Your task to perform on an android device: open the mobile data screen to see how much data has been used Image 0: 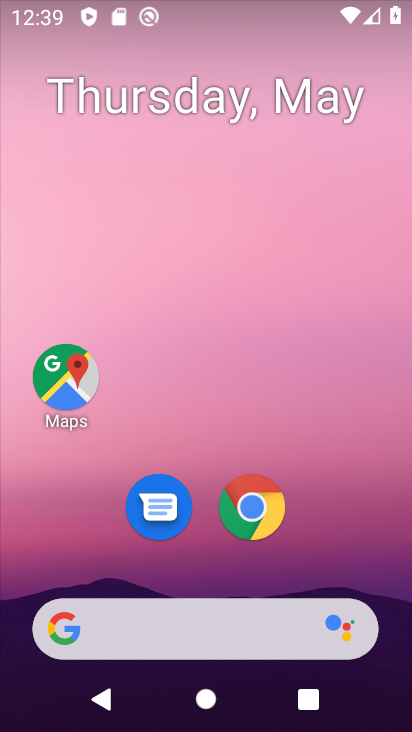
Step 0: drag from (222, 551) to (215, 18)
Your task to perform on an android device: open the mobile data screen to see how much data has been used Image 1: 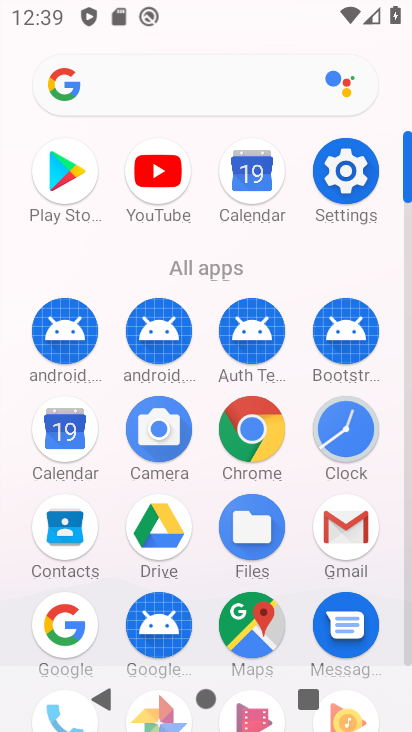
Step 1: click (330, 194)
Your task to perform on an android device: open the mobile data screen to see how much data has been used Image 2: 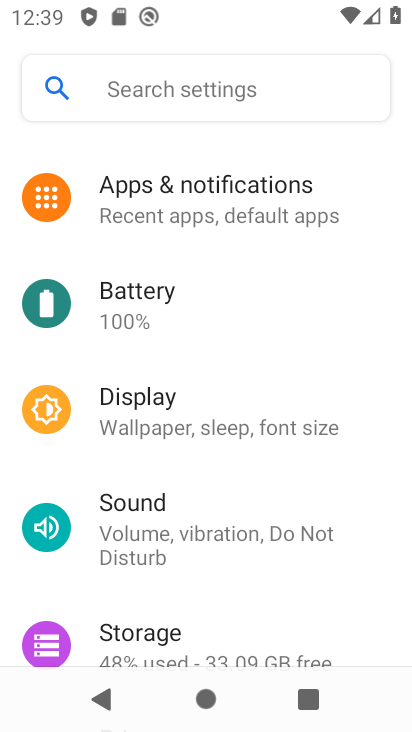
Step 2: drag from (181, 233) to (205, 585)
Your task to perform on an android device: open the mobile data screen to see how much data has been used Image 3: 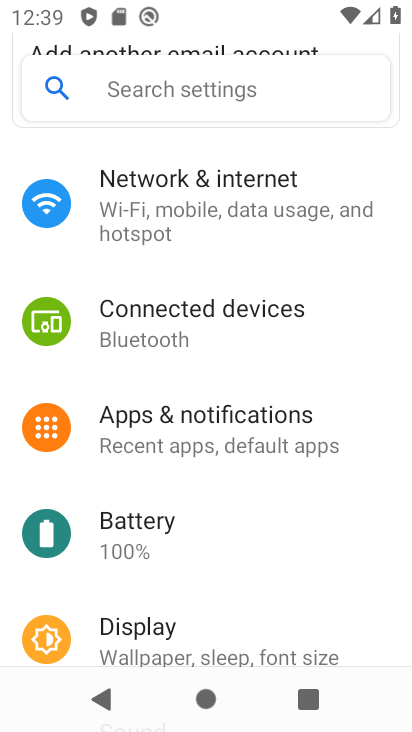
Step 3: click (151, 219)
Your task to perform on an android device: open the mobile data screen to see how much data has been used Image 4: 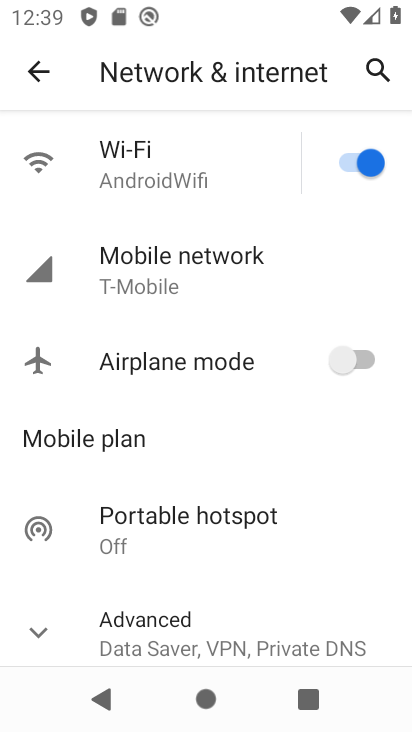
Step 4: click (174, 272)
Your task to perform on an android device: open the mobile data screen to see how much data has been used Image 5: 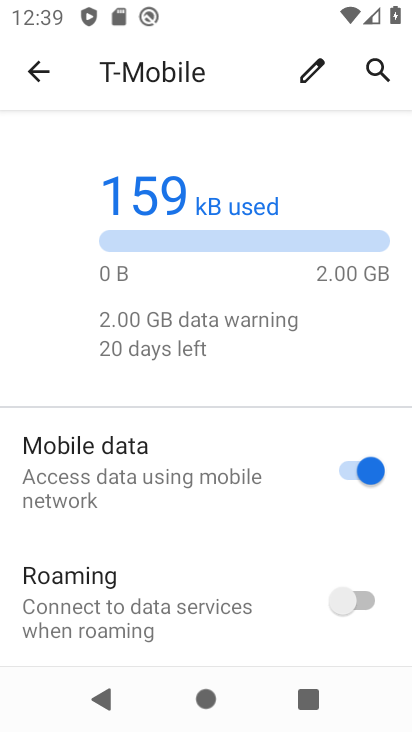
Step 5: task complete